Your task to perform on an android device: Go to Yahoo.com Image 0: 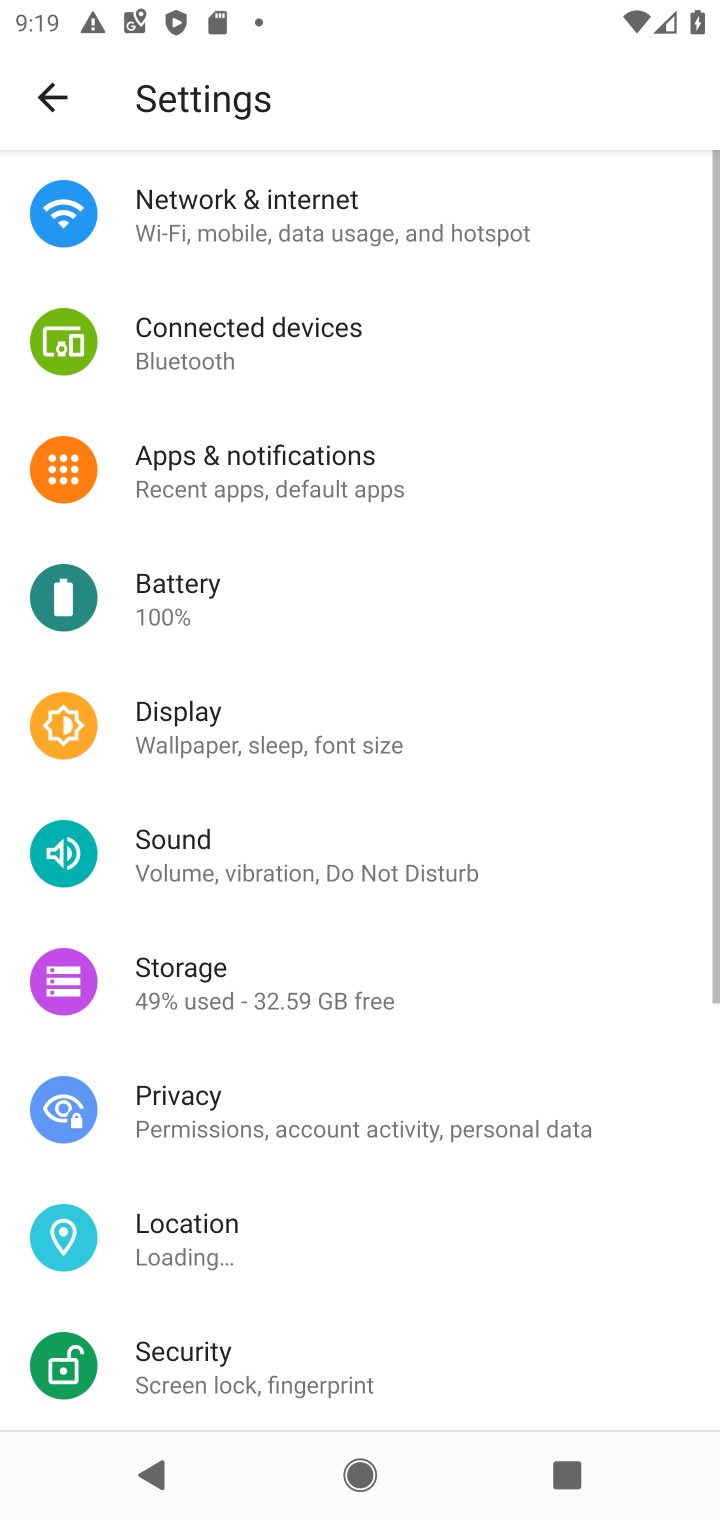
Step 0: press home button
Your task to perform on an android device: Go to Yahoo.com Image 1: 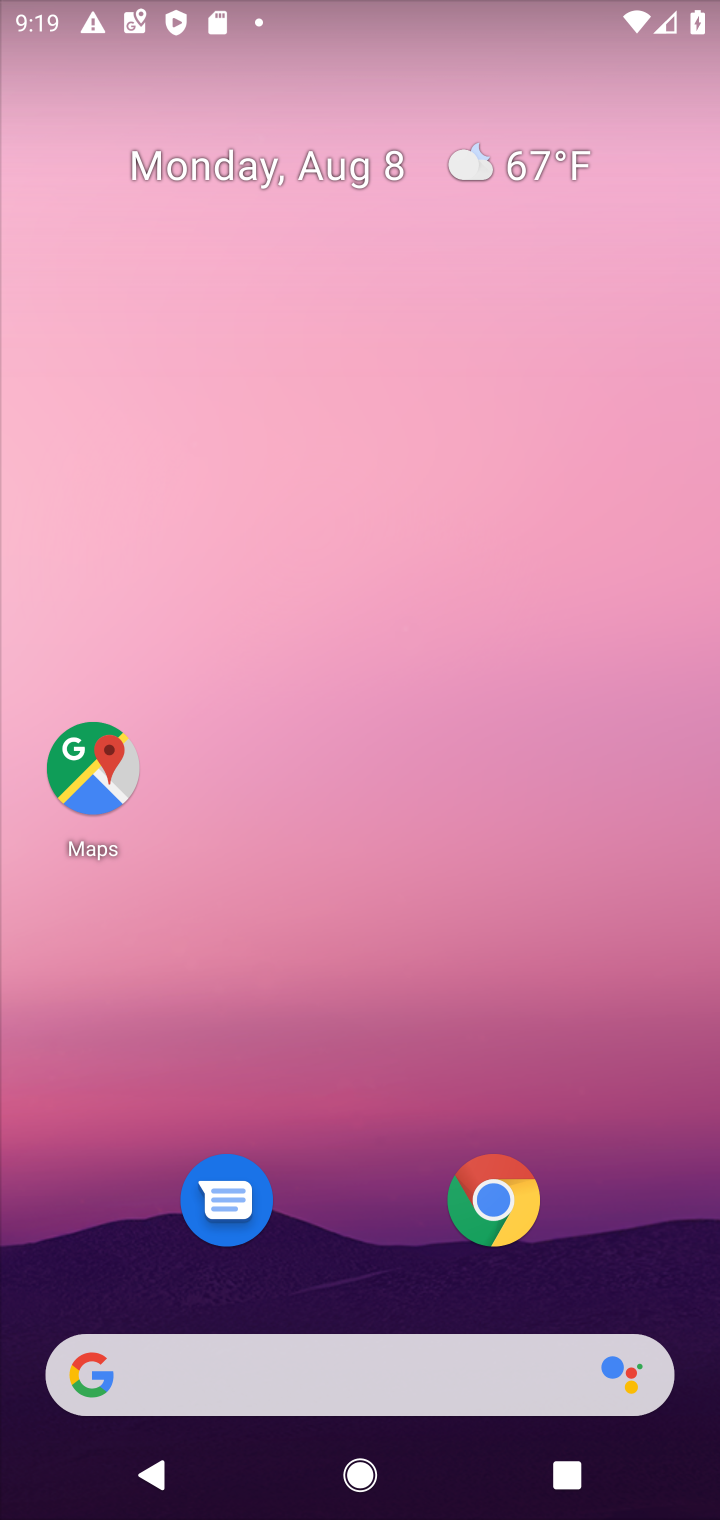
Step 1: click (501, 1198)
Your task to perform on an android device: Go to Yahoo.com Image 2: 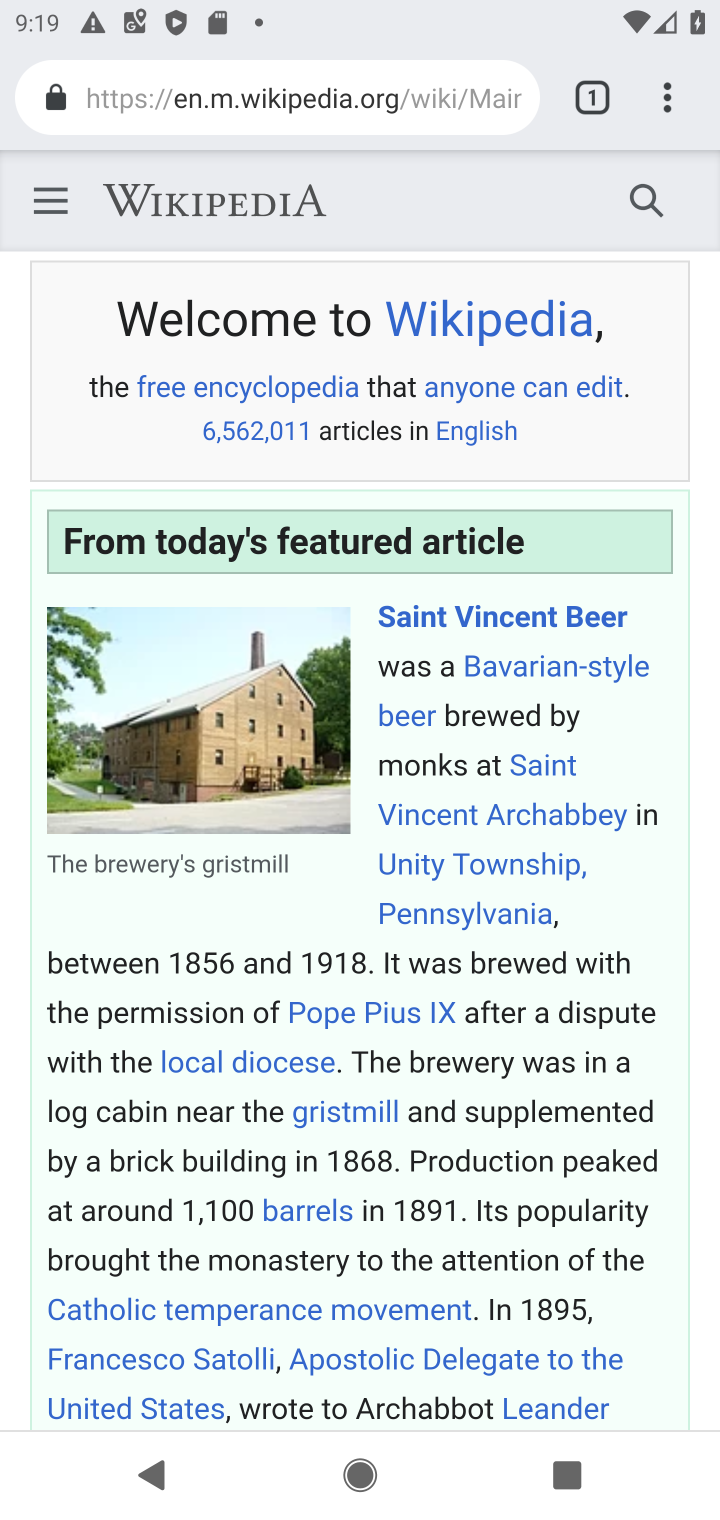
Step 2: drag from (653, 100) to (413, 315)
Your task to perform on an android device: Go to Yahoo.com Image 3: 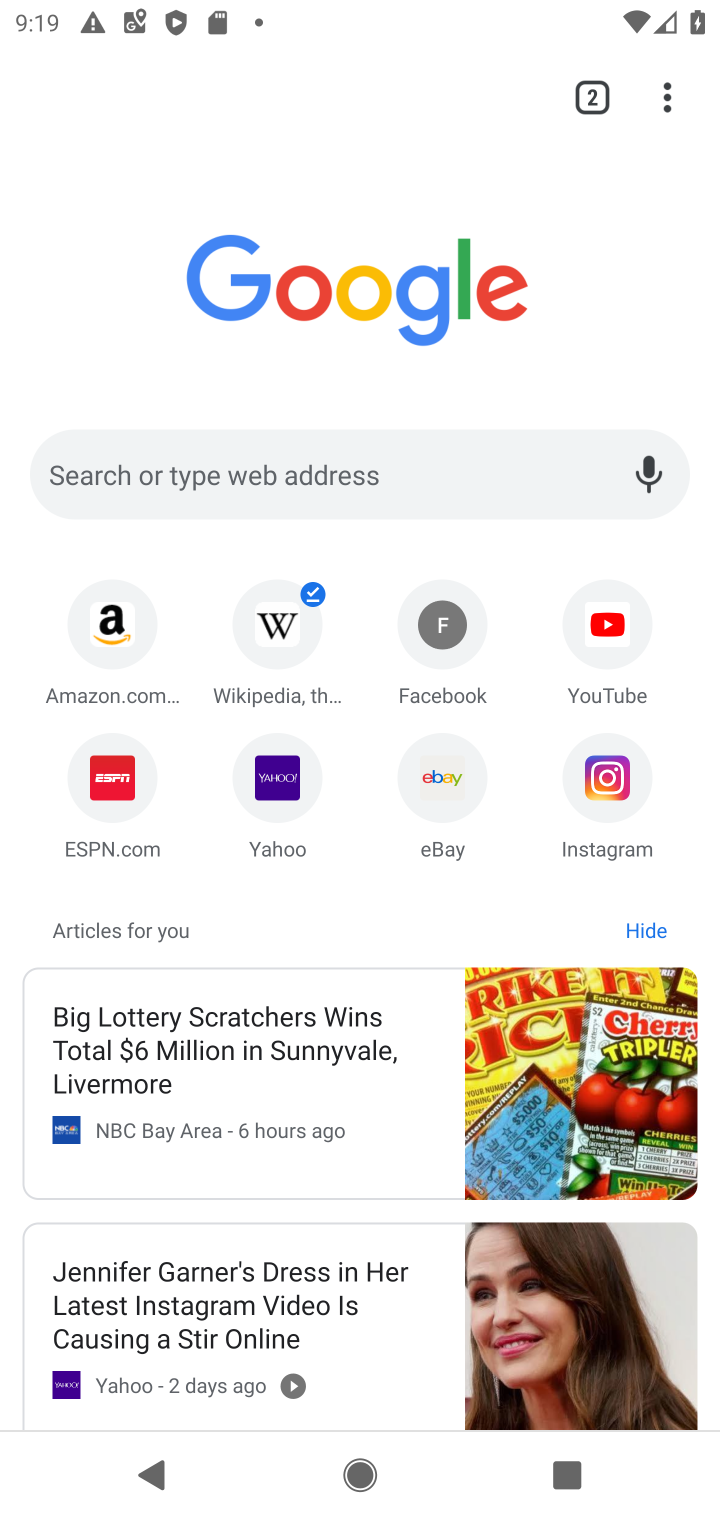
Step 3: click (268, 799)
Your task to perform on an android device: Go to Yahoo.com Image 4: 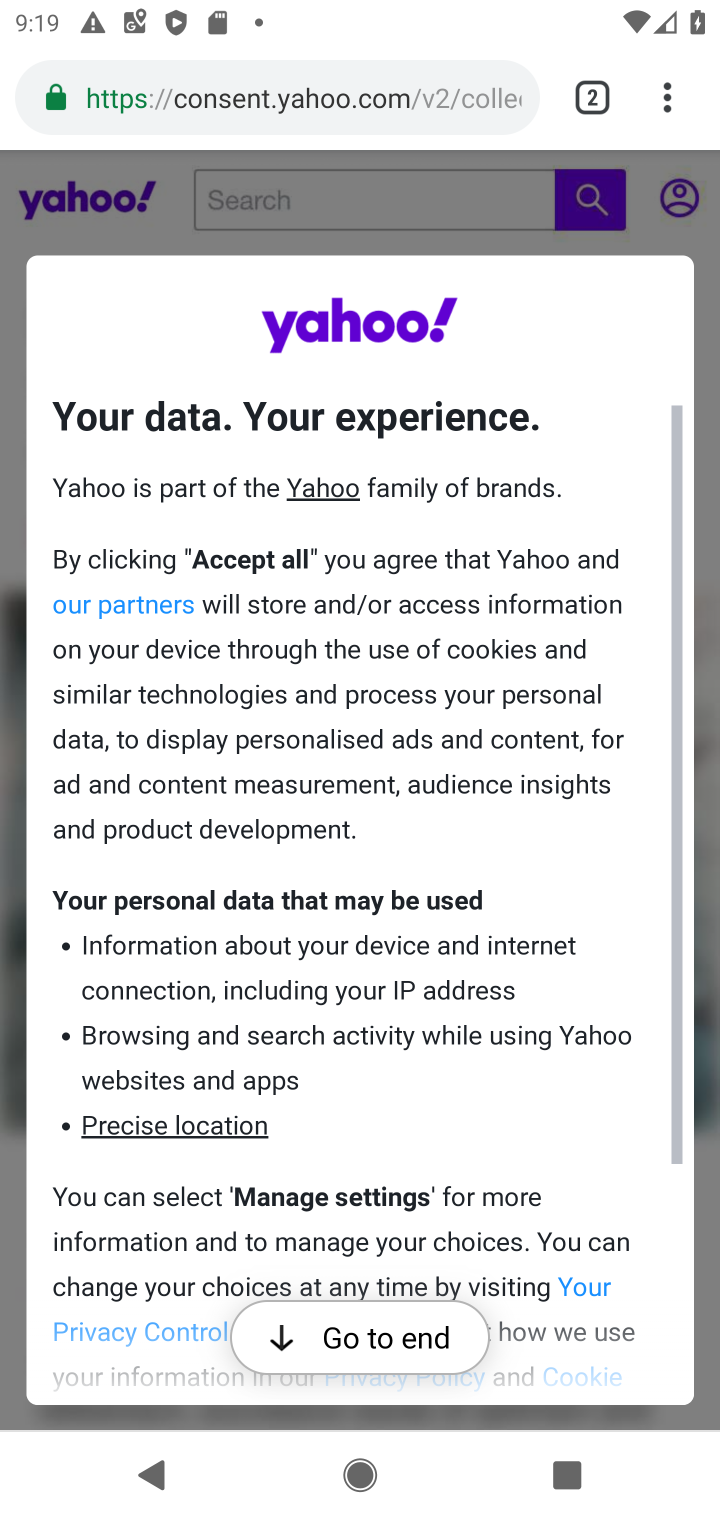
Step 4: drag from (220, 1102) to (500, 369)
Your task to perform on an android device: Go to Yahoo.com Image 5: 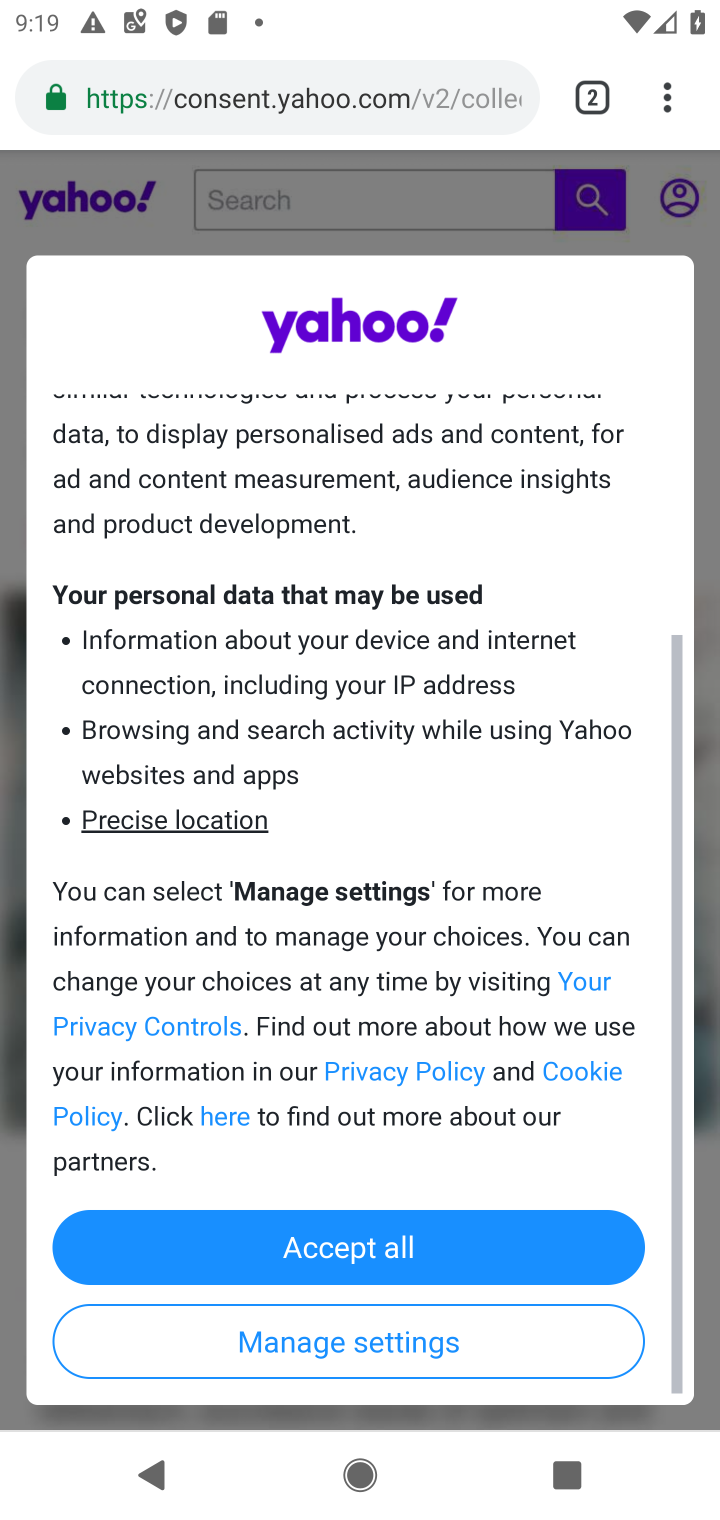
Step 5: click (341, 1238)
Your task to perform on an android device: Go to Yahoo.com Image 6: 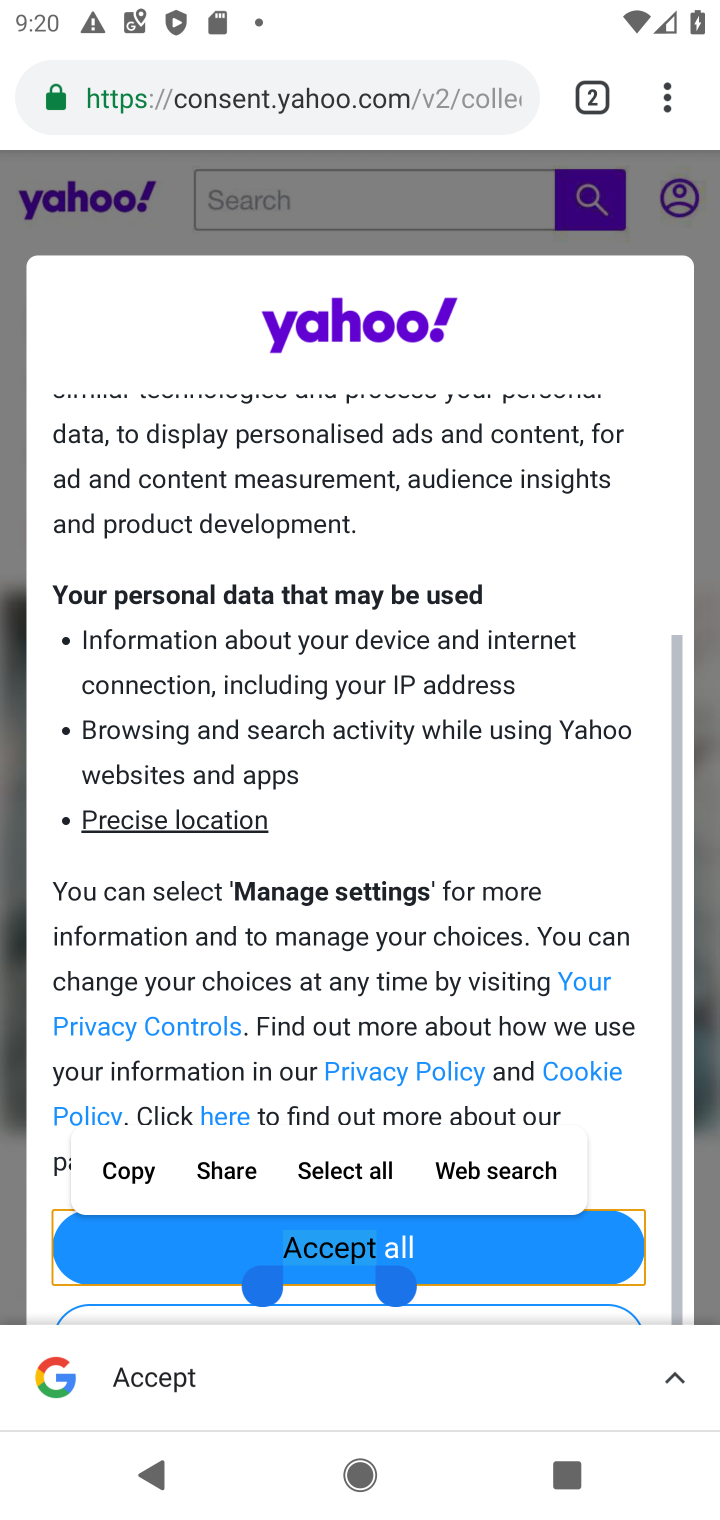
Step 6: click (368, 1249)
Your task to perform on an android device: Go to Yahoo.com Image 7: 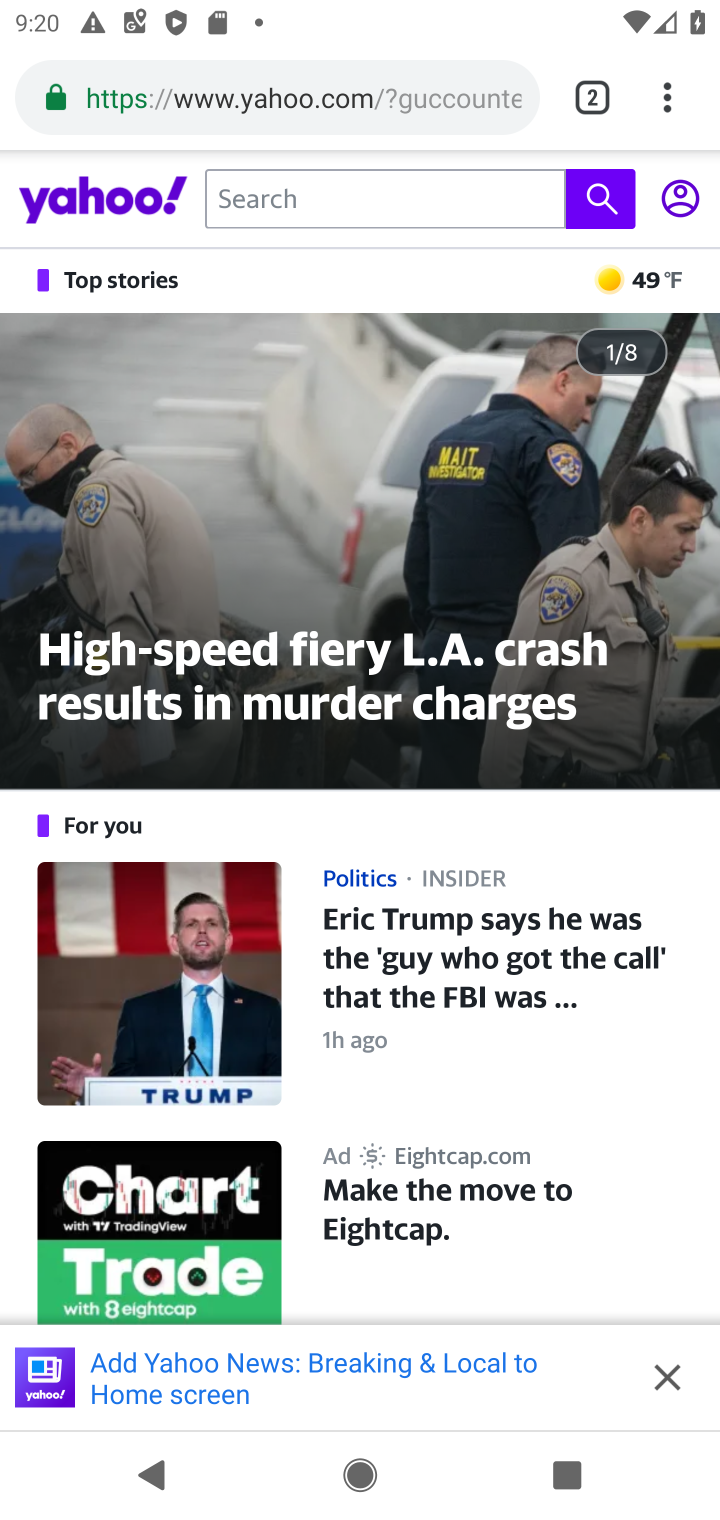
Step 7: task complete